Your task to perform on an android device: When is my next meeting? Image 0: 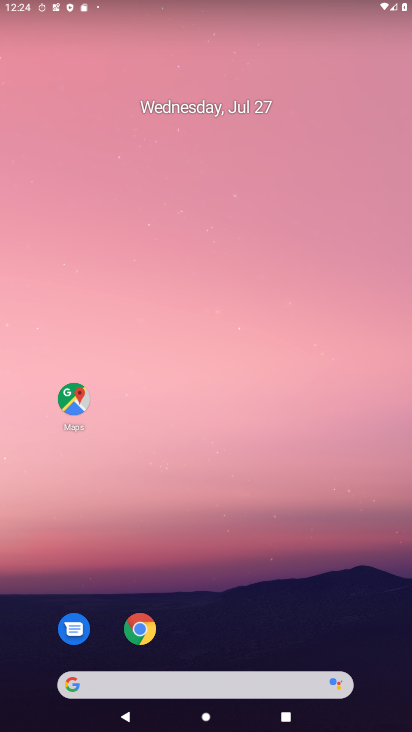
Step 0: drag from (334, 616) to (238, 35)
Your task to perform on an android device: When is my next meeting? Image 1: 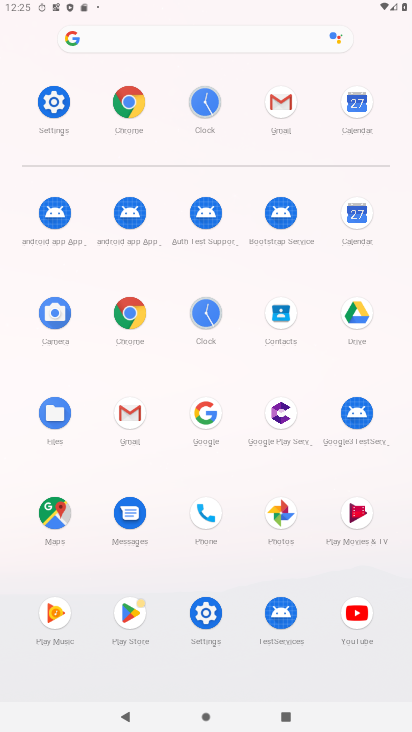
Step 1: click (353, 213)
Your task to perform on an android device: When is my next meeting? Image 2: 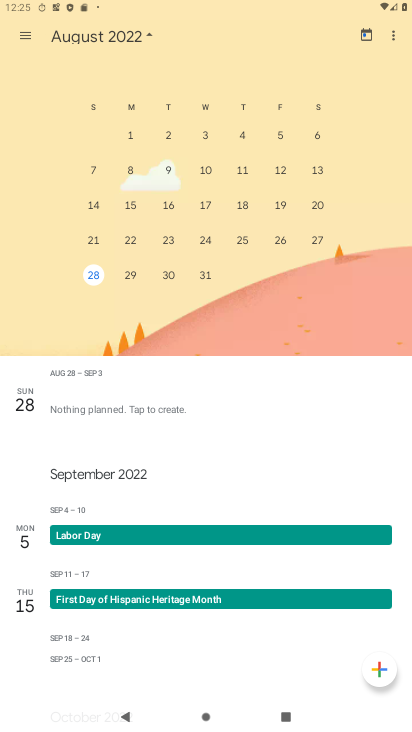
Step 2: task complete